Your task to perform on an android device: View the shopping cart on walmart. Search for acer predator on walmart, select the first entry, add it to the cart, then select checkout. Image 0: 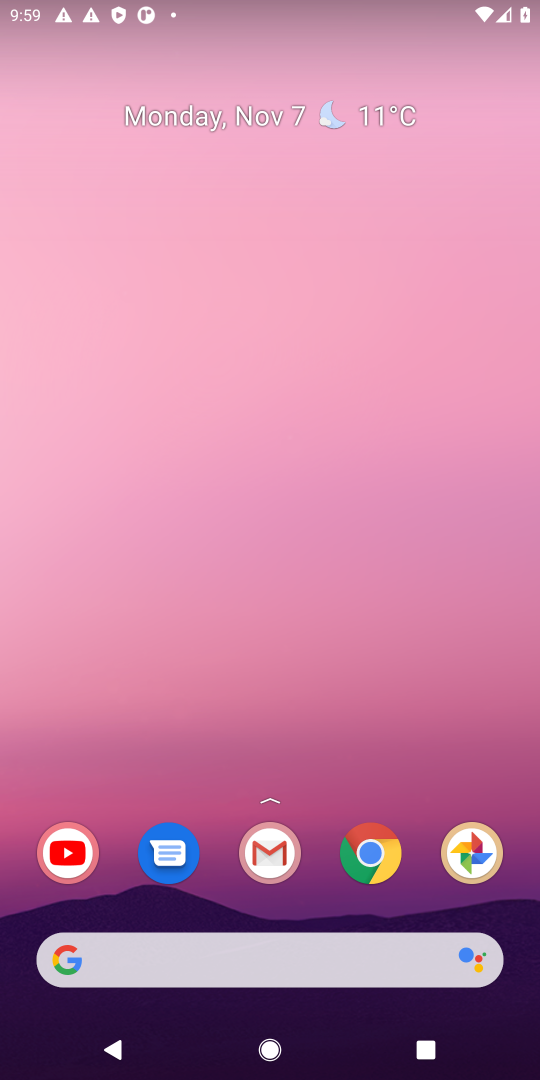
Step 0: click (305, 980)
Your task to perform on an android device: View the shopping cart on walmart. Search for acer predator on walmart, select the first entry, add it to the cart, then select checkout. Image 1: 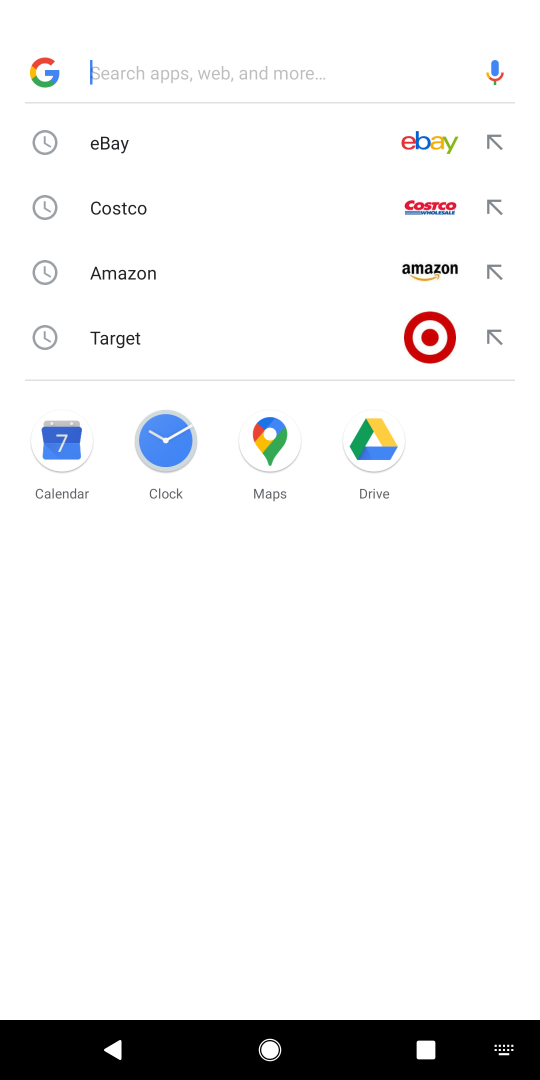
Step 1: type "walmart"
Your task to perform on an android device: View the shopping cart on walmart. Search for acer predator on walmart, select the first entry, add it to the cart, then select checkout. Image 2: 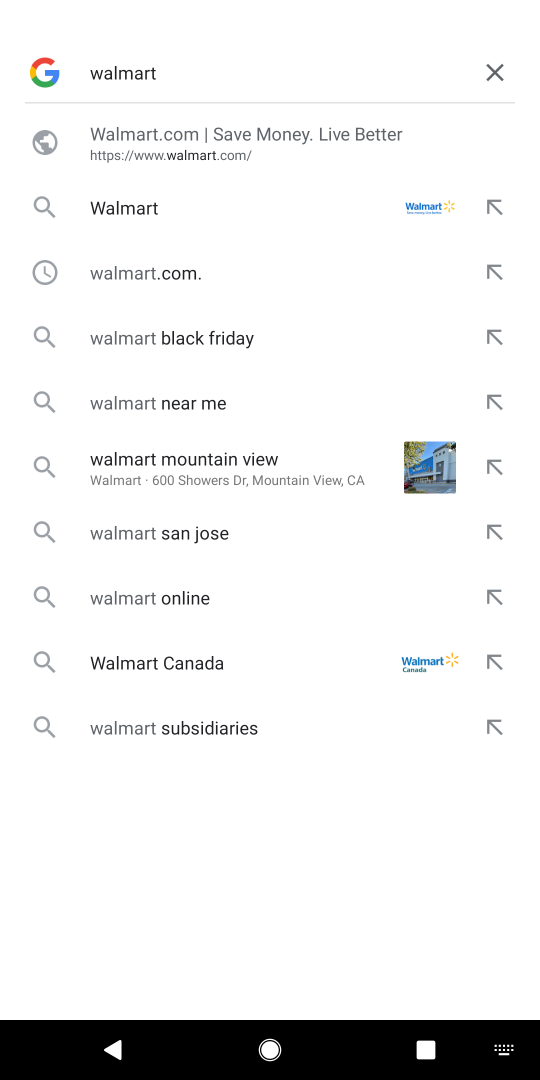
Step 2: click (205, 115)
Your task to perform on an android device: View the shopping cart on walmart. Search for acer predator on walmart, select the first entry, add it to the cart, then select checkout. Image 3: 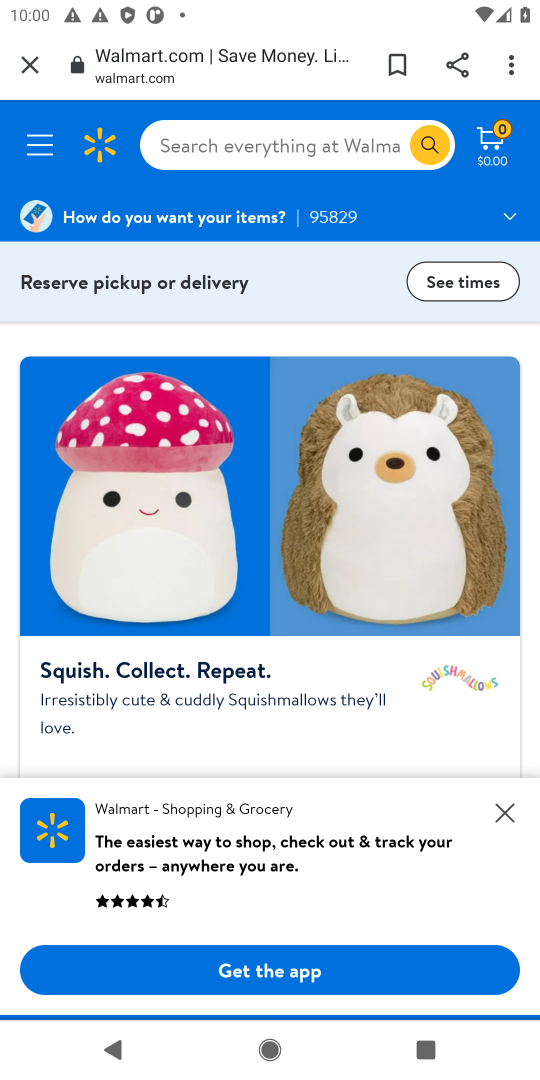
Step 3: click (207, 135)
Your task to perform on an android device: View the shopping cart on walmart. Search for acer predator on walmart, select the first entry, add it to the cart, then select checkout. Image 4: 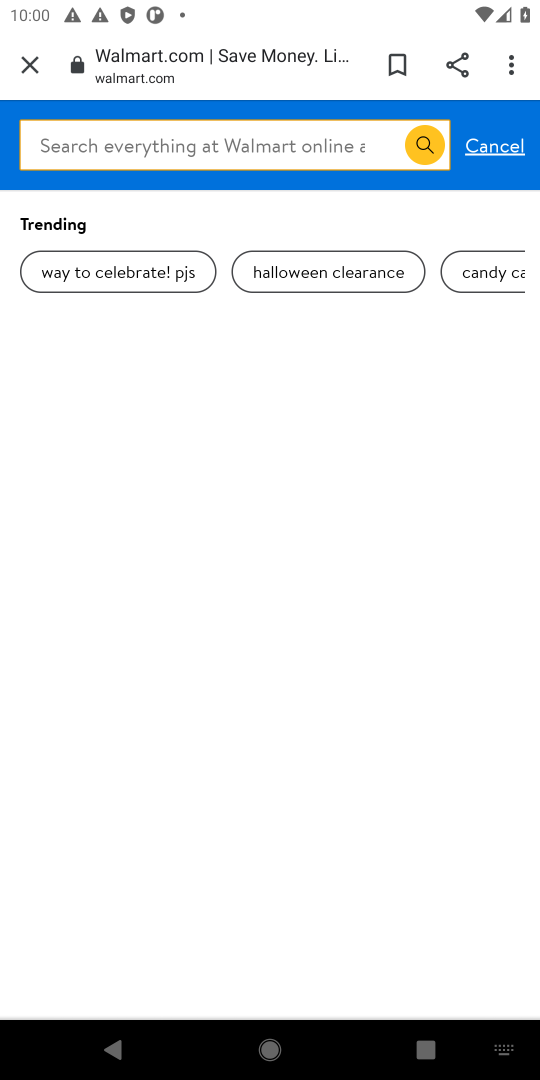
Step 4: task complete